Your task to perform on an android device: Open the map Image 0: 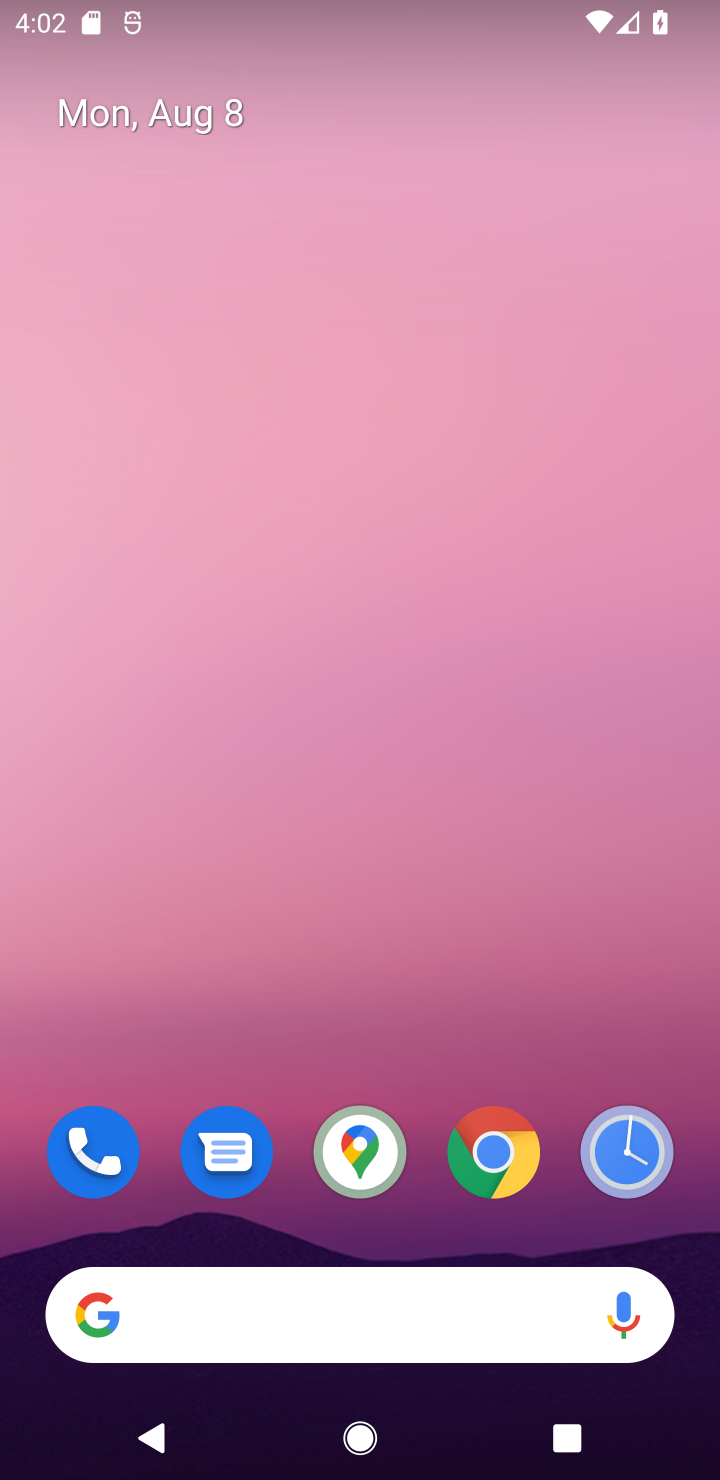
Step 0: click (379, 1137)
Your task to perform on an android device: Open the map Image 1: 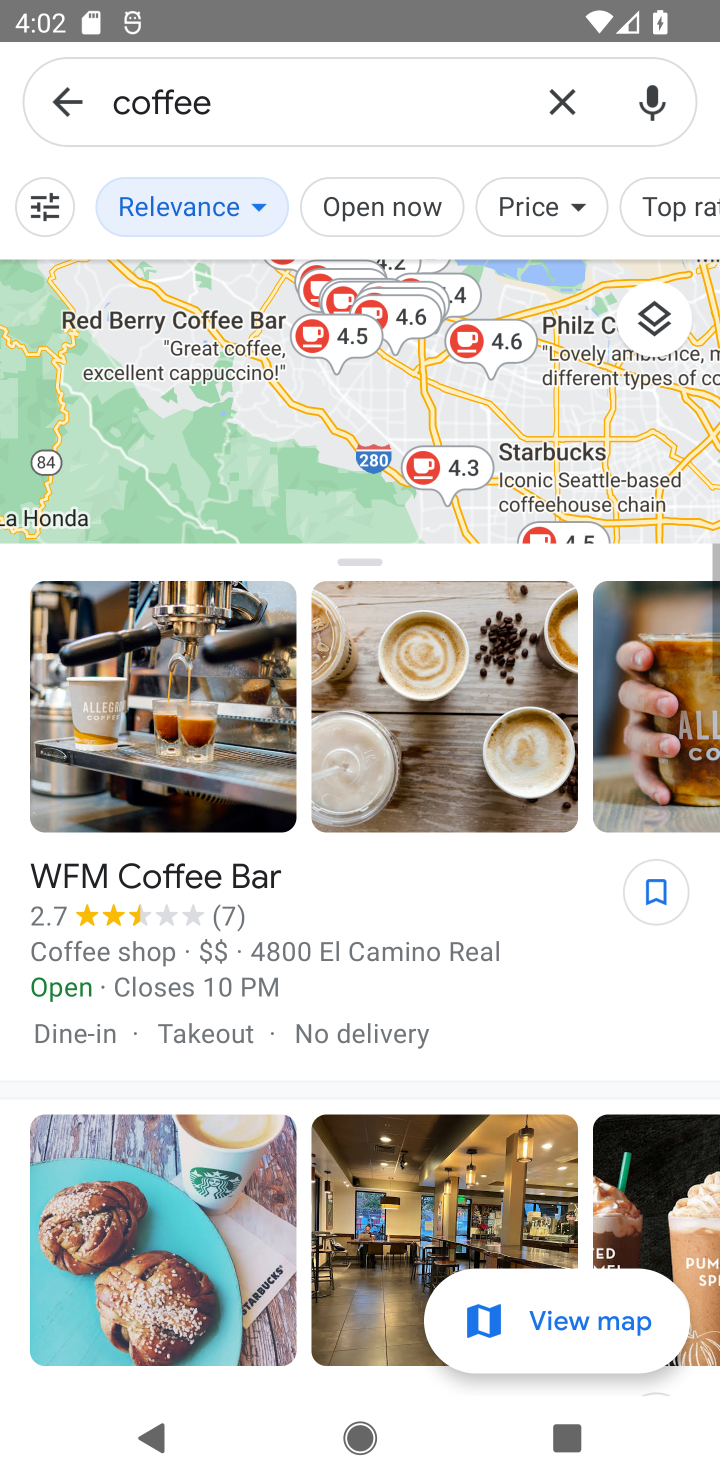
Step 1: task complete